Your task to perform on an android device: Open maps Image 0: 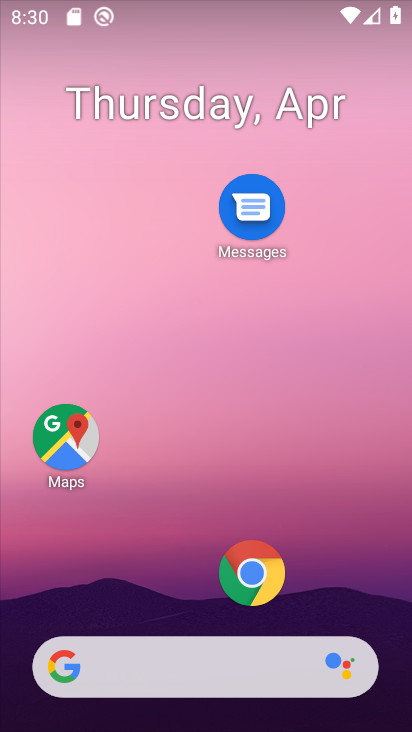
Step 0: click (67, 430)
Your task to perform on an android device: Open maps Image 1: 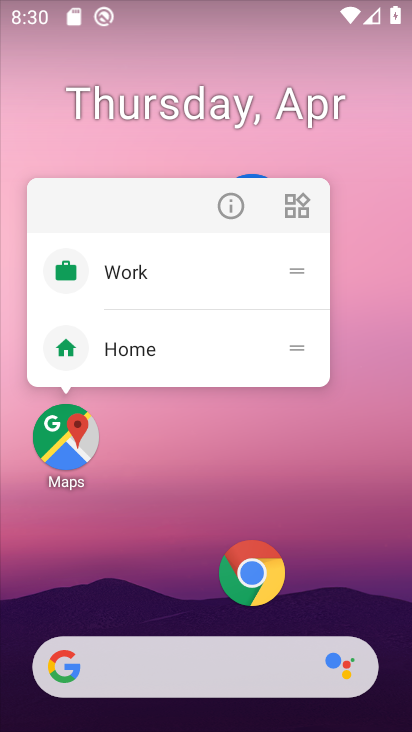
Step 1: click (151, 462)
Your task to perform on an android device: Open maps Image 2: 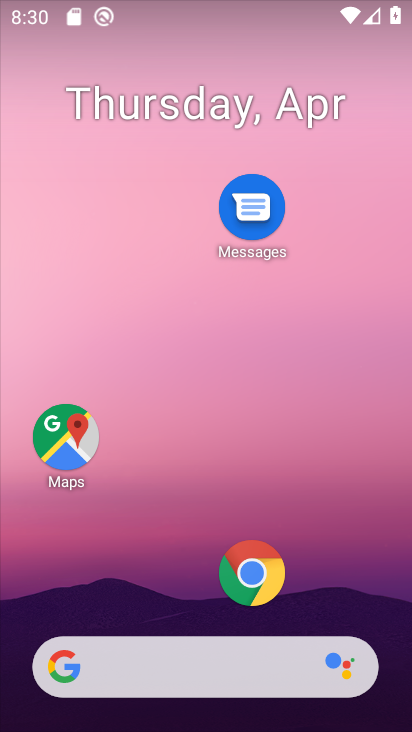
Step 2: click (95, 545)
Your task to perform on an android device: Open maps Image 3: 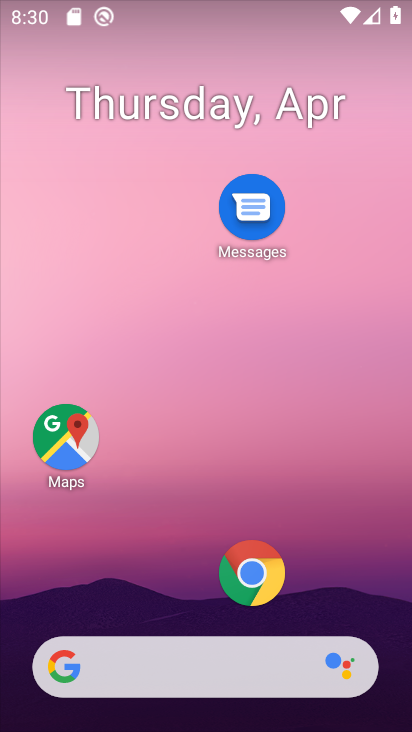
Step 3: click (67, 431)
Your task to perform on an android device: Open maps Image 4: 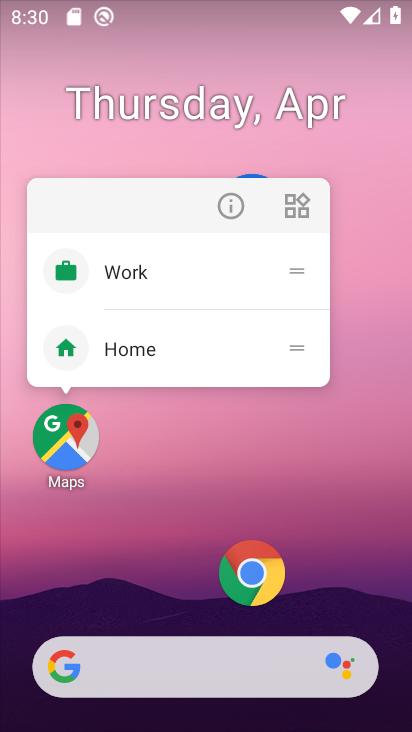
Step 4: click (67, 430)
Your task to perform on an android device: Open maps Image 5: 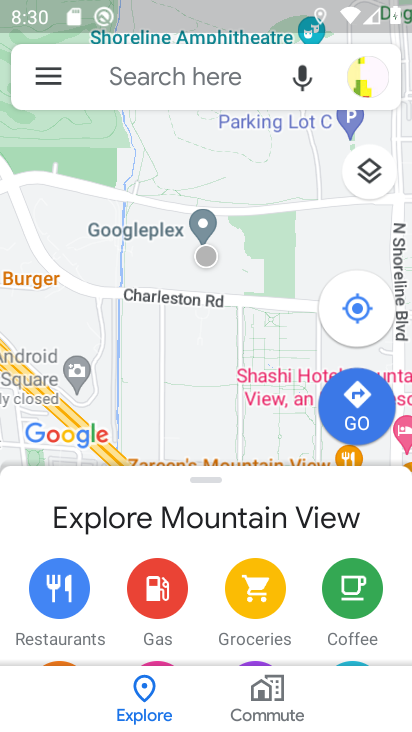
Step 5: click (47, 66)
Your task to perform on an android device: Open maps Image 6: 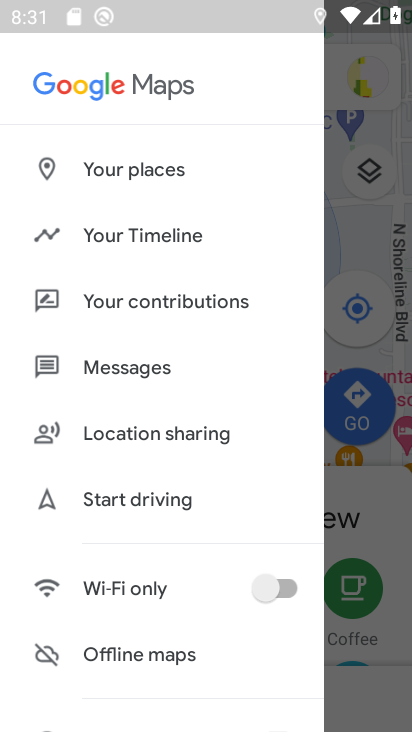
Step 6: task complete